Your task to perform on an android device: turn off location Image 0: 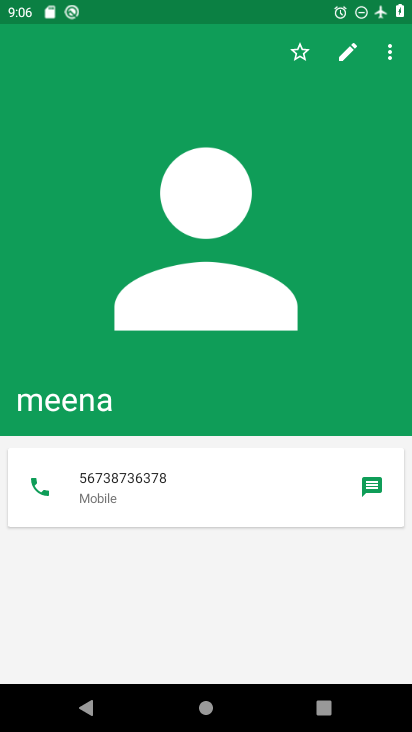
Step 0: press home button
Your task to perform on an android device: turn off location Image 1: 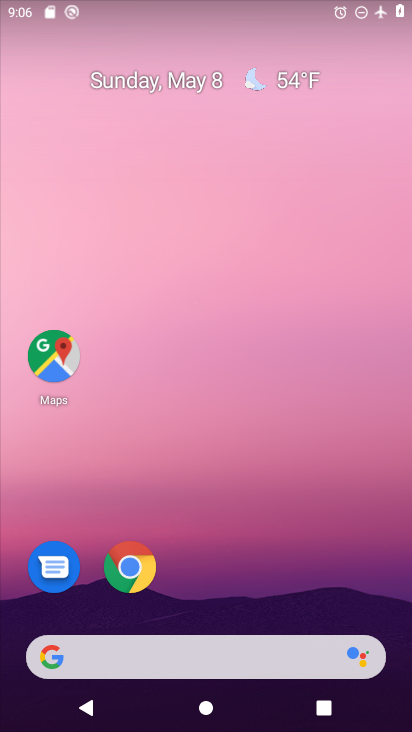
Step 1: drag from (244, 550) to (184, 113)
Your task to perform on an android device: turn off location Image 2: 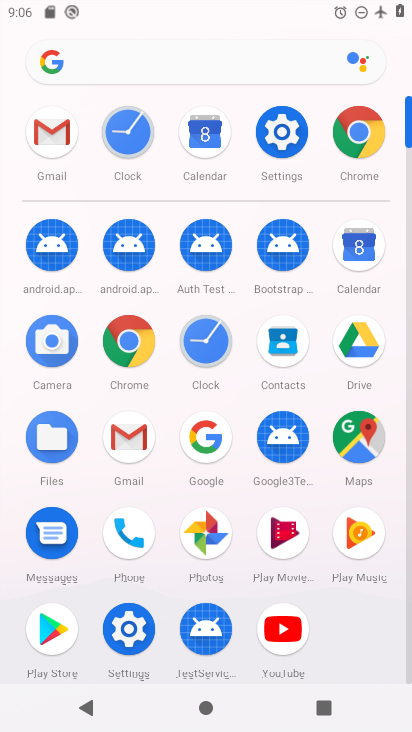
Step 2: click (302, 124)
Your task to perform on an android device: turn off location Image 3: 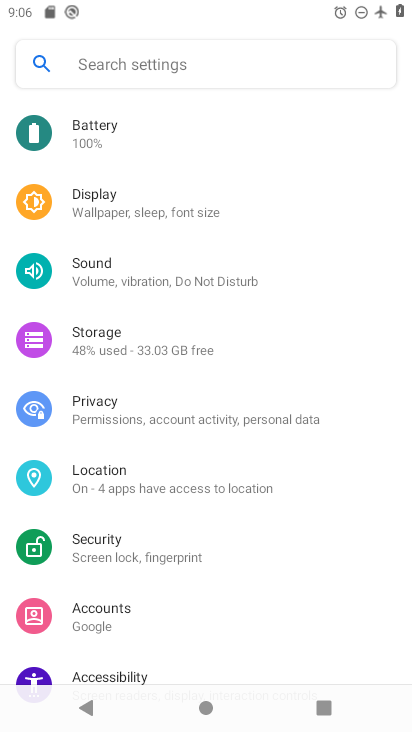
Step 3: click (180, 468)
Your task to perform on an android device: turn off location Image 4: 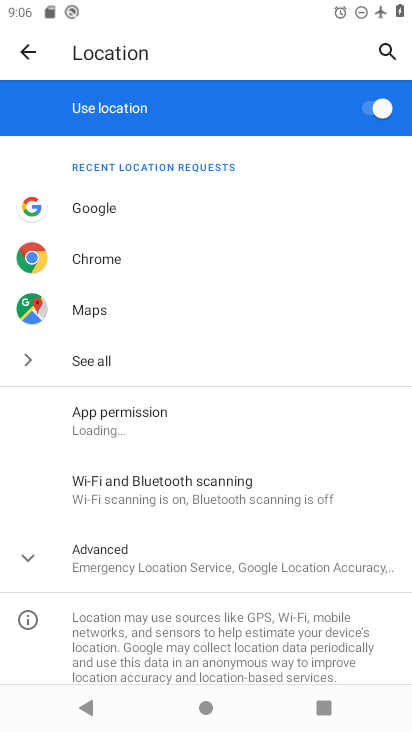
Step 4: click (363, 106)
Your task to perform on an android device: turn off location Image 5: 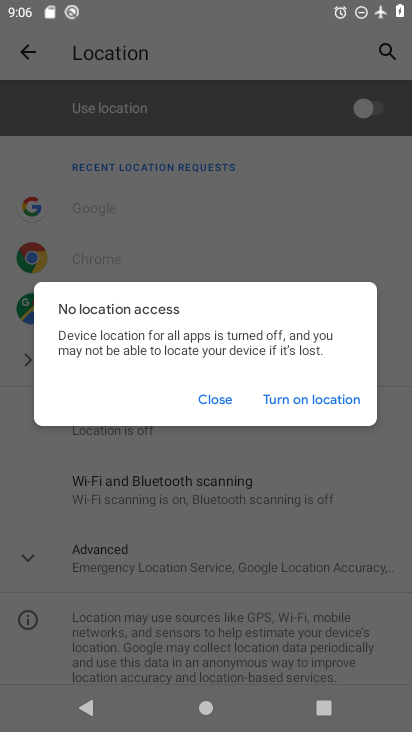
Step 5: task complete